Your task to perform on an android device: Go to privacy settings Image 0: 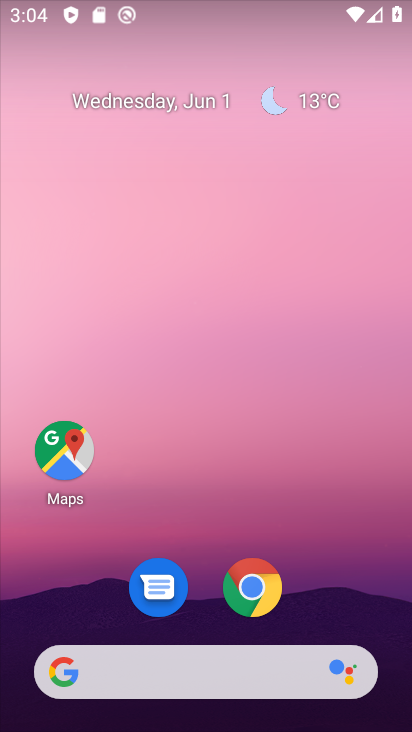
Step 0: drag from (322, 572) to (219, 33)
Your task to perform on an android device: Go to privacy settings Image 1: 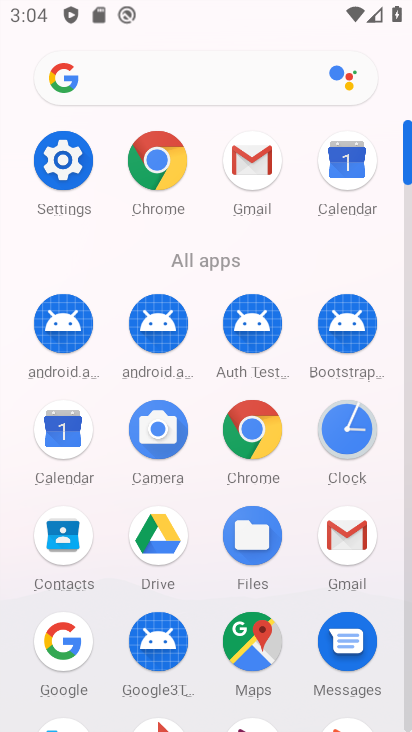
Step 1: drag from (3, 554) to (15, 244)
Your task to perform on an android device: Go to privacy settings Image 2: 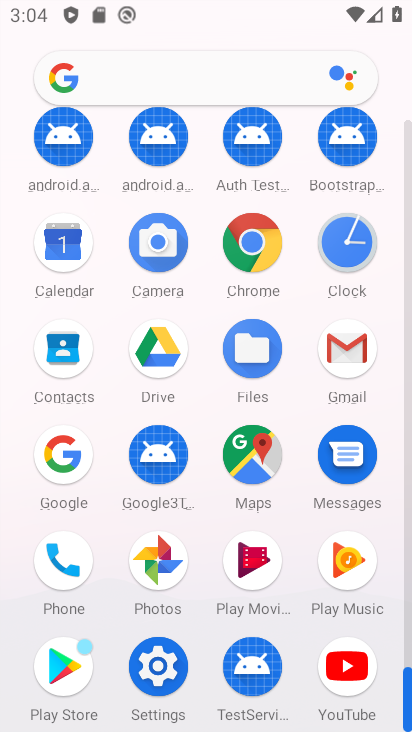
Step 2: click (156, 665)
Your task to perform on an android device: Go to privacy settings Image 3: 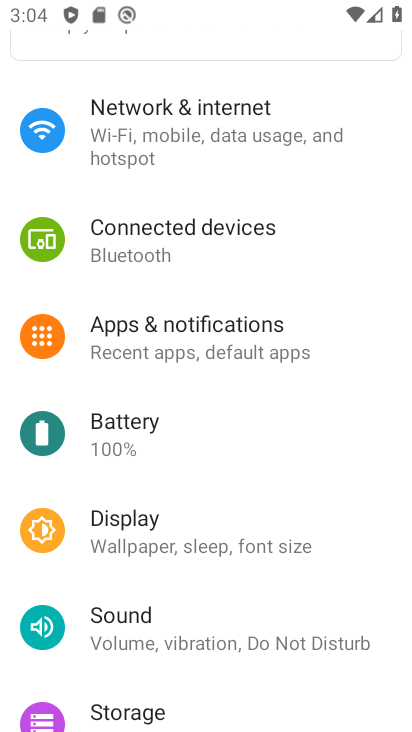
Step 3: drag from (321, 286) to (307, 643)
Your task to perform on an android device: Go to privacy settings Image 4: 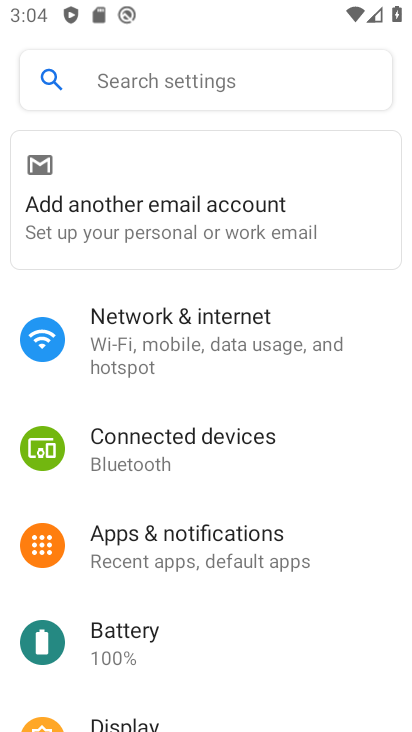
Step 4: drag from (325, 575) to (348, 214)
Your task to perform on an android device: Go to privacy settings Image 5: 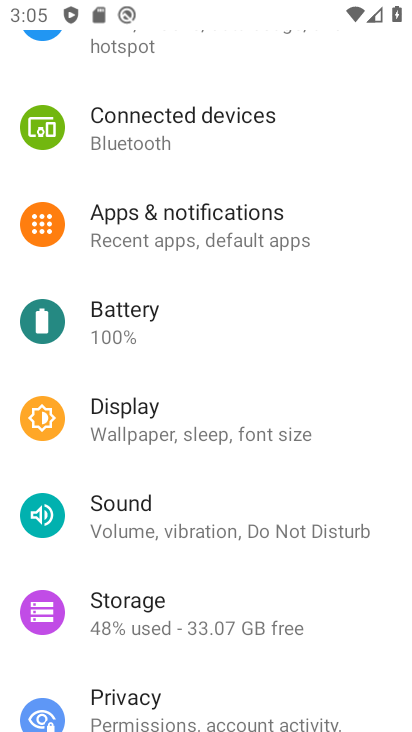
Step 5: drag from (287, 241) to (287, 205)
Your task to perform on an android device: Go to privacy settings Image 6: 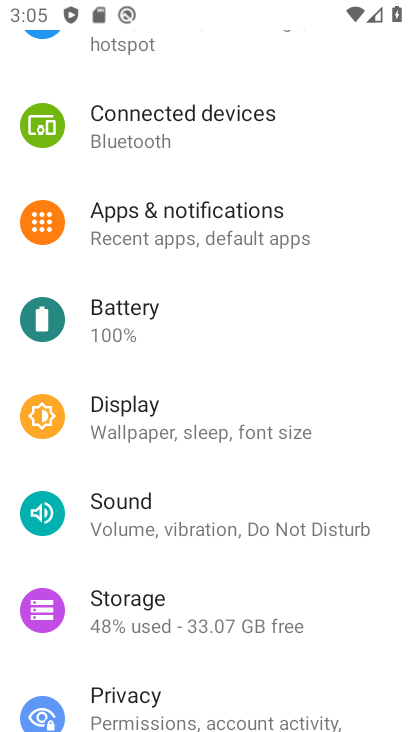
Step 6: drag from (279, 547) to (286, 222)
Your task to perform on an android device: Go to privacy settings Image 7: 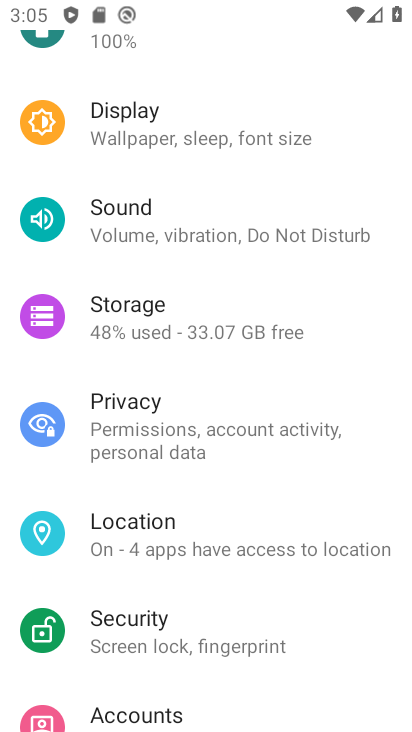
Step 7: click (147, 433)
Your task to perform on an android device: Go to privacy settings Image 8: 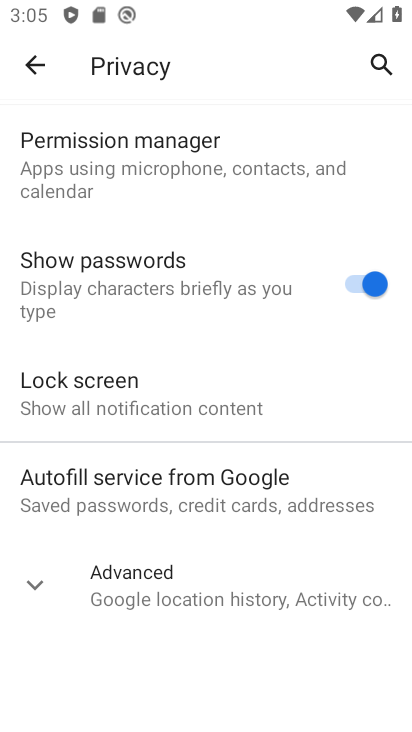
Step 8: click (31, 584)
Your task to perform on an android device: Go to privacy settings Image 9: 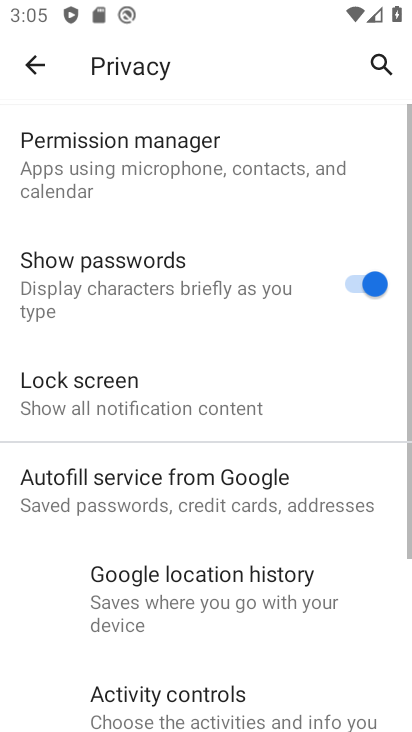
Step 9: task complete